Your task to perform on an android device: Turn on the flashlight Image 0: 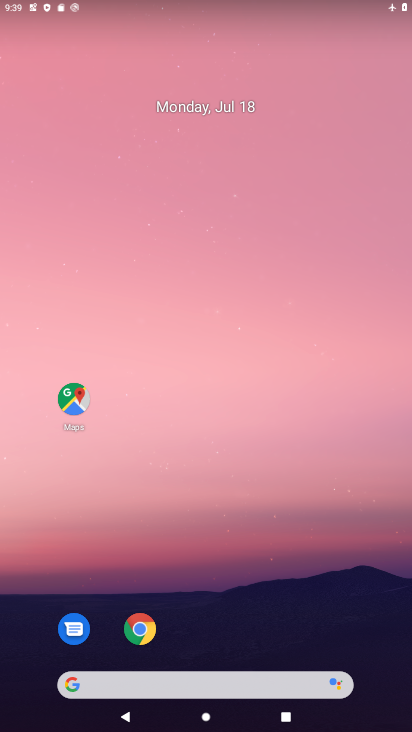
Step 0: drag from (378, 654) to (234, 156)
Your task to perform on an android device: Turn on the flashlight Image 1: 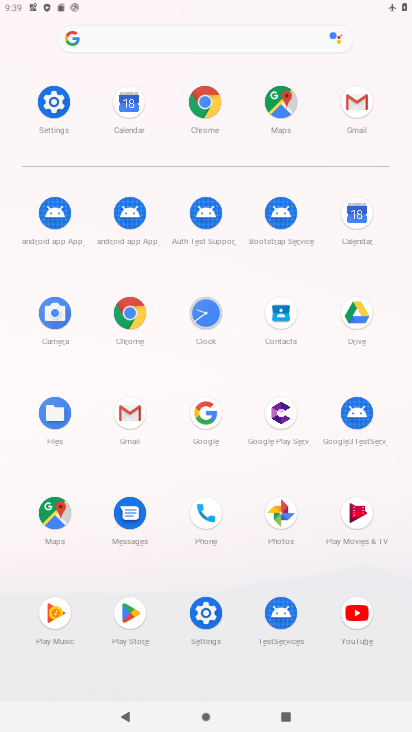
Step 1: click (59, 108)
Your task to perform on an android device: Turn on the flashlight Image 2: 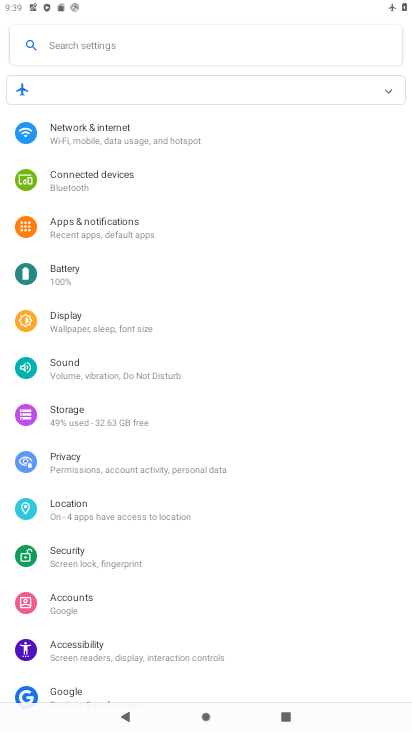
Step 2: click (101, 330)
Your task to perform on an android device: Turn on the flashlight Image 3: 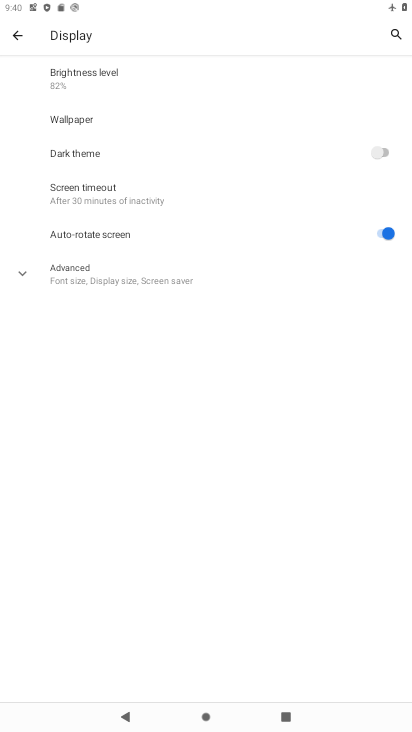
Step 3: click (73, 196)
Your task to perform on an android device: Turn on the flashlight Image 4: 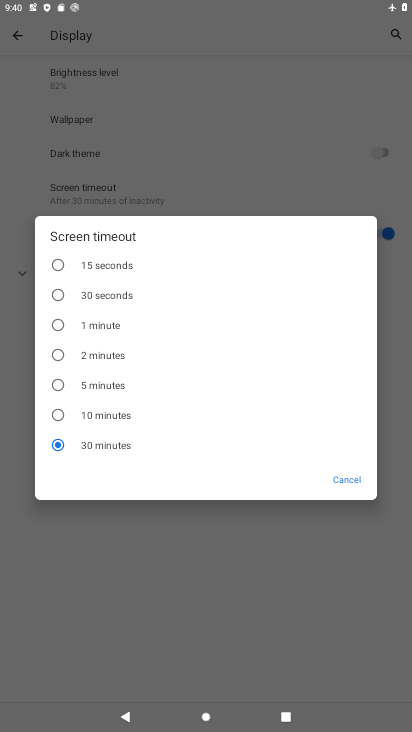
Step 4: task complete